Your task to perform on an android device: add a label to a message in the gmail app Image 0: 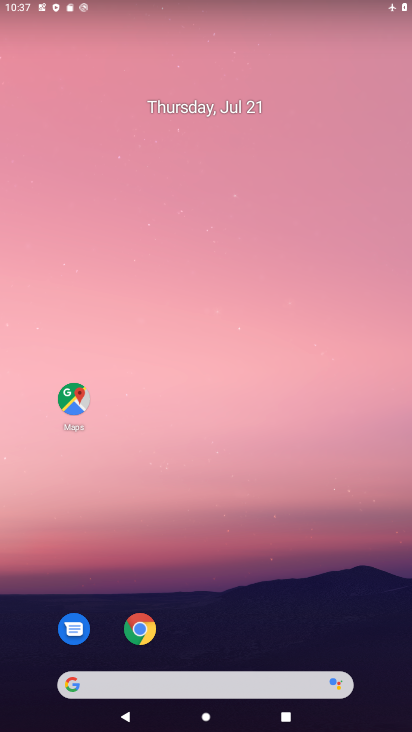
Step 0: press home button
Your task to perform on an android device: add a label to a message in the gmail app Image 1: 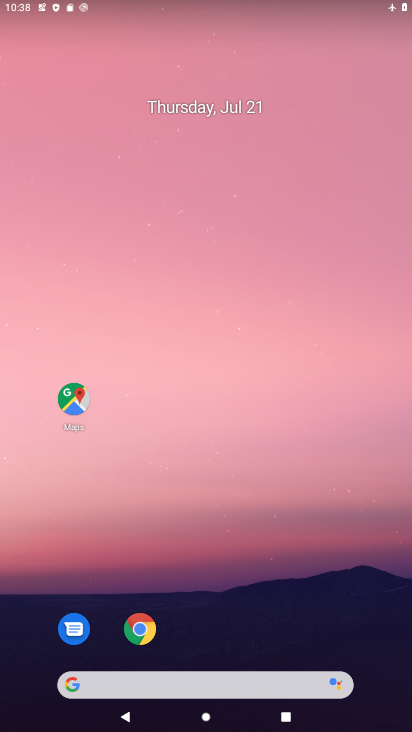
Step 1: drag from (240, 633) to (240, 92)
Your task to perform on an android device: add a label to a message in the gmail app Image 2: 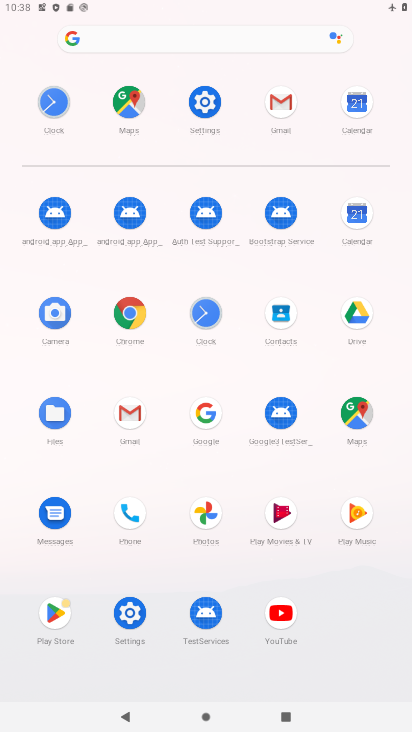
Step 2: click (293, 99)
Your task to perform on an android device: add a label to a message in the gmail app Image 3: 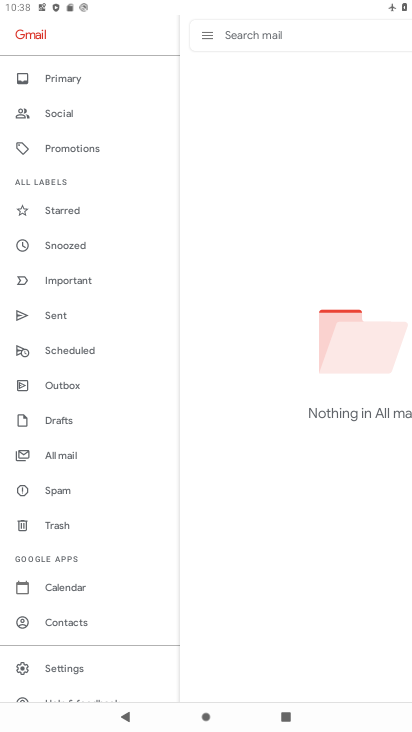
Step 3: click (57, 457)
Your task to perform on an android device: add a label to a message in the gmail app Image 4: 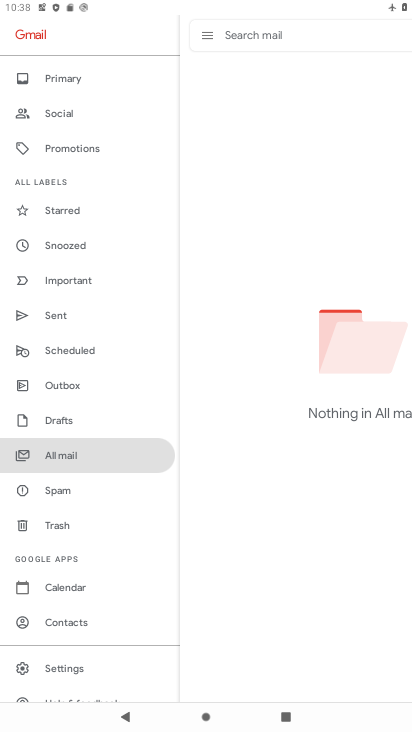
Step 4: task complete